Your task to perform on an android device: delete browsing data in the chrome app Image 0: 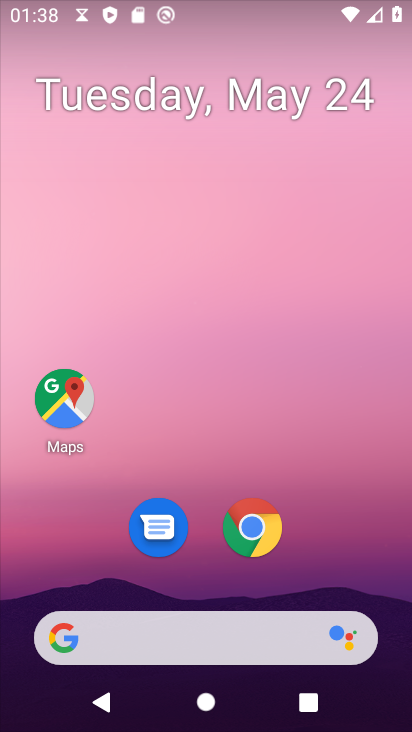
Step 0: click (250, 534)
Your task to perform on an android device: delete browsing data in the chrome app Image 1: 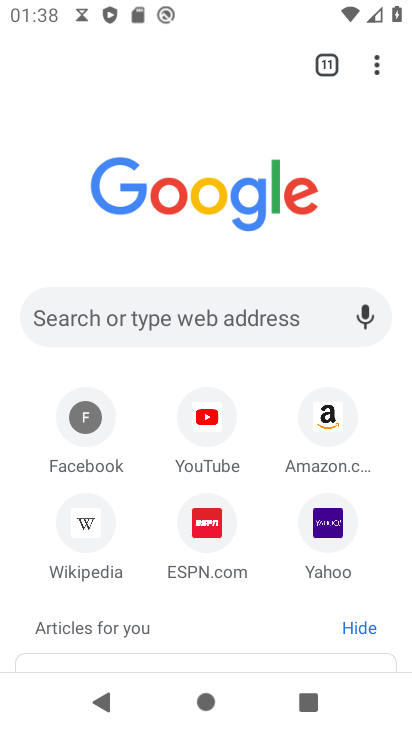
Step 1: drag from (380, 68) to (231, 544)
Your task to perform on an android device: delete browsing data in the chrome app Image 2: 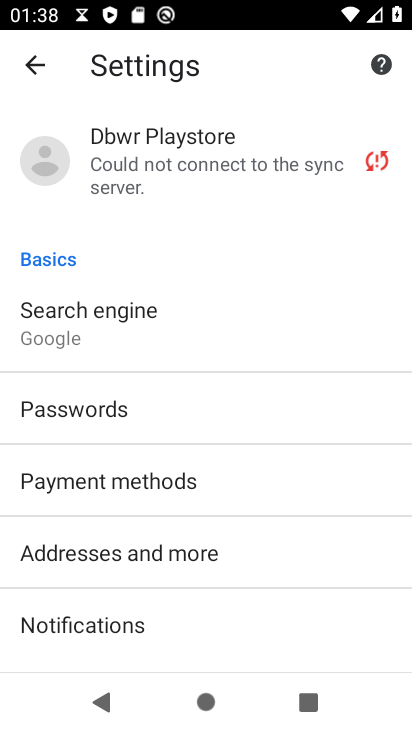
Step 2: drag from (121, 591) to (291, 197)
Your task to perform on an android device: delete browsing data in the chrome app Image 3: 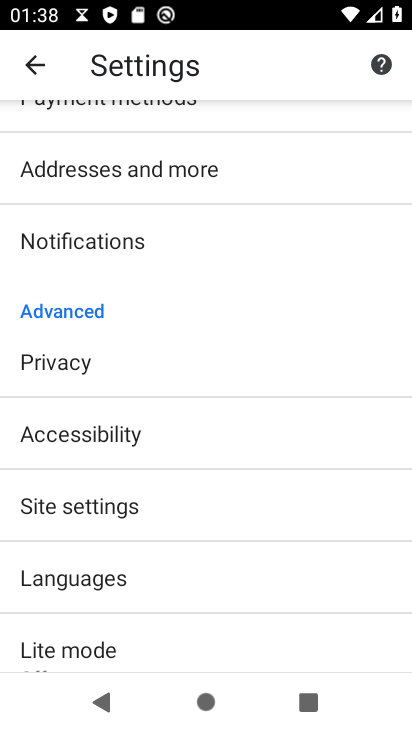
Step 3: click (68, 362)
Your task to perform on an android device: delete browsing data in the chrome app Image 4: 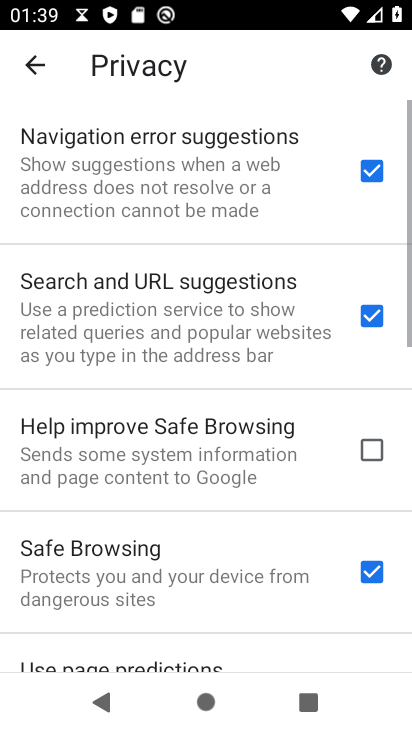
Step 4: drag from (204, 599) to (365, 120)
Your task to perform on an android device: delete browsing data in the chrome app Image 5: 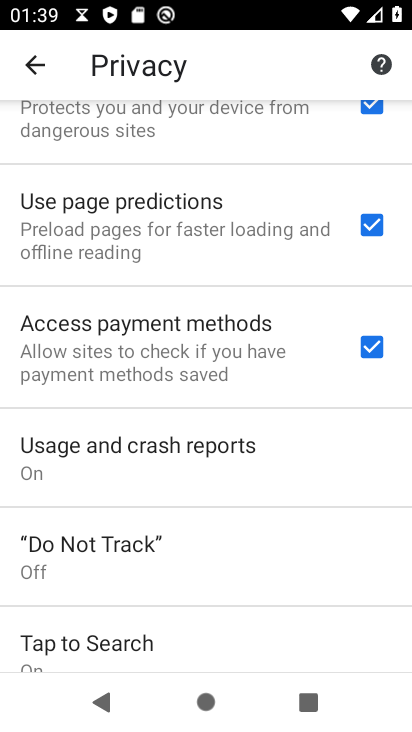
Step 5: drag from (204, 575) to (412, 107)
Your task to perform on an android device: delete browsing data in the chrome app Image 6: 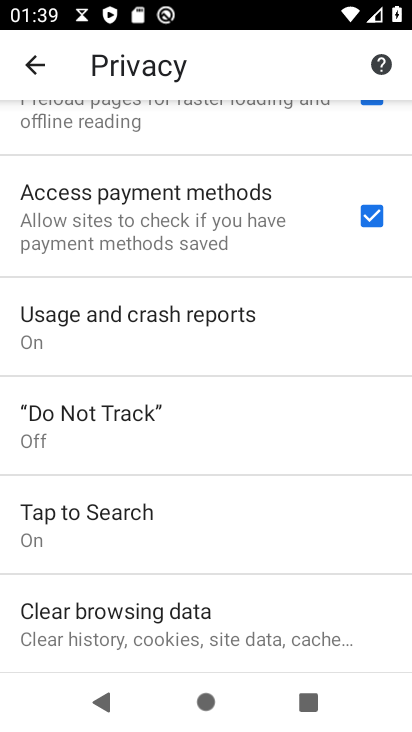
Step 6: click (173, 612)
Your task to perform on an android device: delete browsing data in the chrome app Image 7: 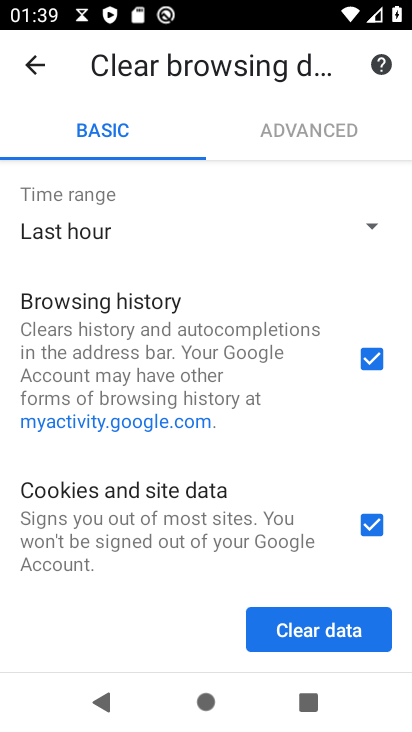
Step 7: drag from (244, 518) to (389, 102)
Your task to perform on an android device: delete browsing data in the chrome app Image 8: 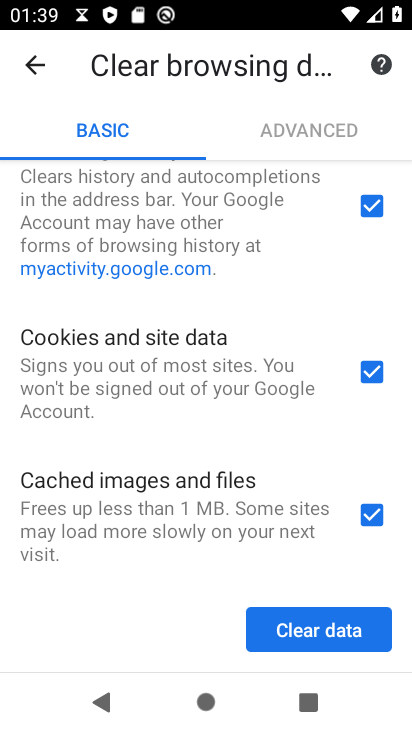
Step 8: click (306, 622)
Your task to perform on an android device: delete browsing data in the chrome app Image 9: 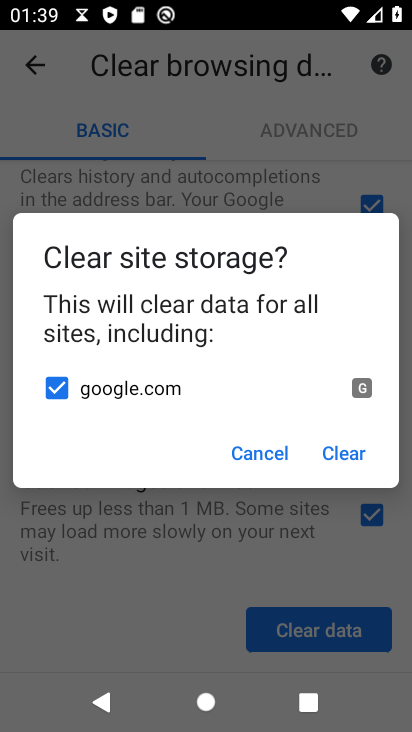
Step 9: click (339, 444)
Your task to perform on an android device: delete browsing data in the chrome app Image 10: 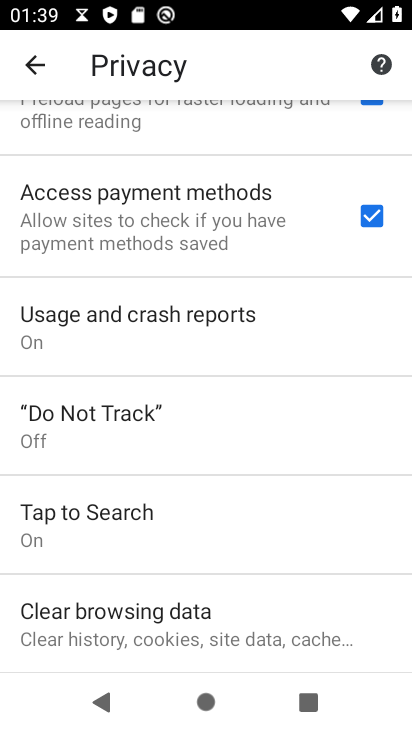
Step 10: task complete